Your task to perform on an android device: What's on my calendar tomorrow? Image 0: 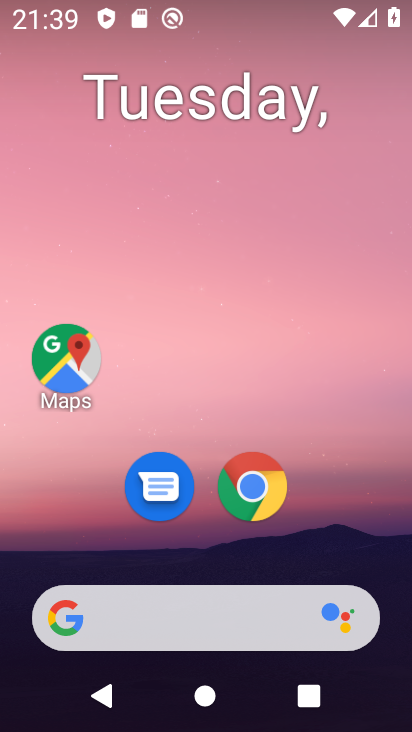
Step 0: press home button
Your task to perform on an android device: What's on my calendar tomorrow? Image 1: 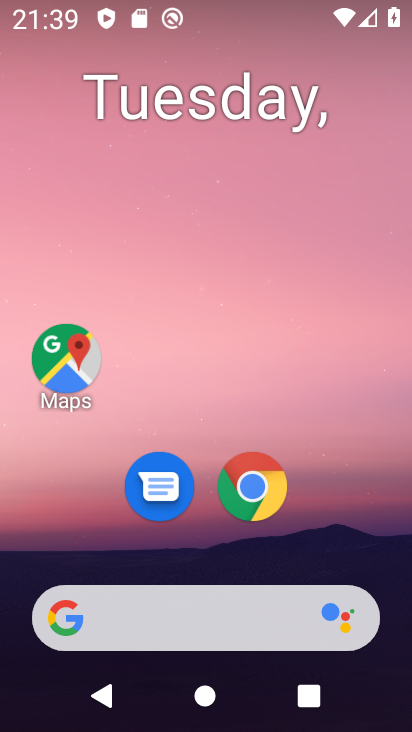
Step 1: drag from (345, 522) to (354, 149)
Your task to perform on an android device: What's on my calendar tomorrow? Image 2: 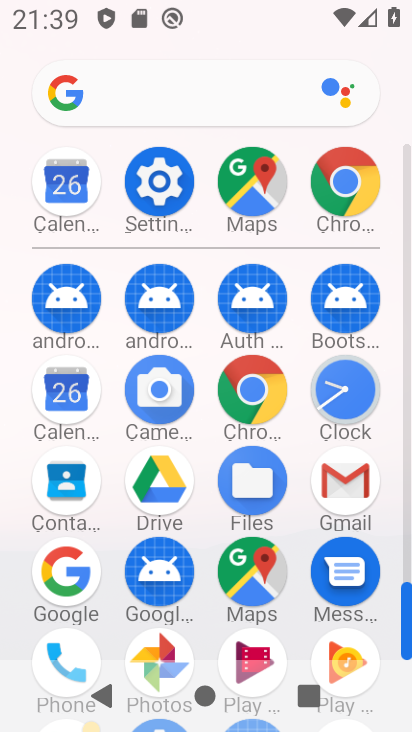
Step 2: click (74, 389)
Your task to perform on an android device: What's on my calendar tomorrow? Image 3: 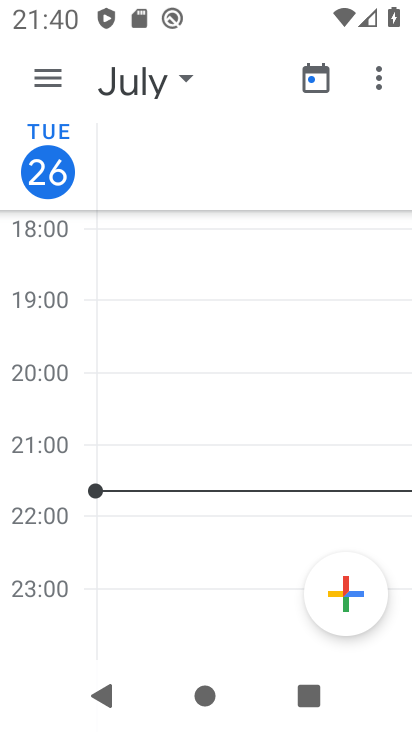
Step 3: click (58, 77)
Your task to perform on an android device: What's on my calendar tomorrow? Image 4: 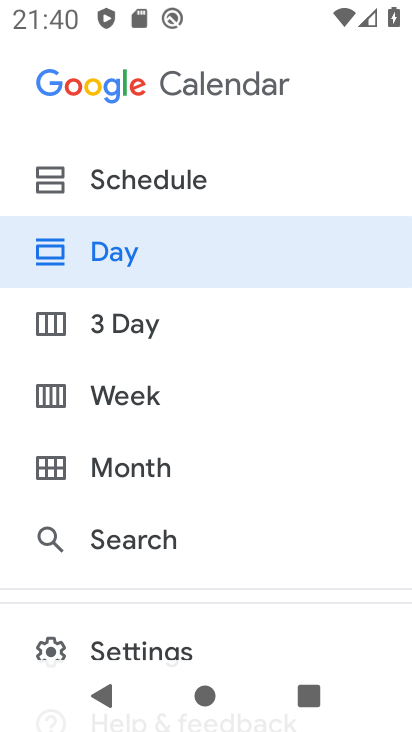
Step 4: click (121, 186)
Your task to perform on an android device: What's on my calendar tomorrow? Image 5: 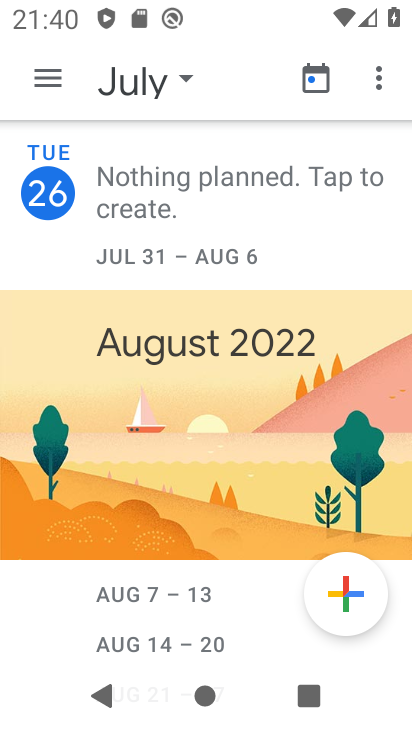
Step 5: click (181, 83)
Your task to perform on an android device: What's on my calendar tomorrow? Image 6: 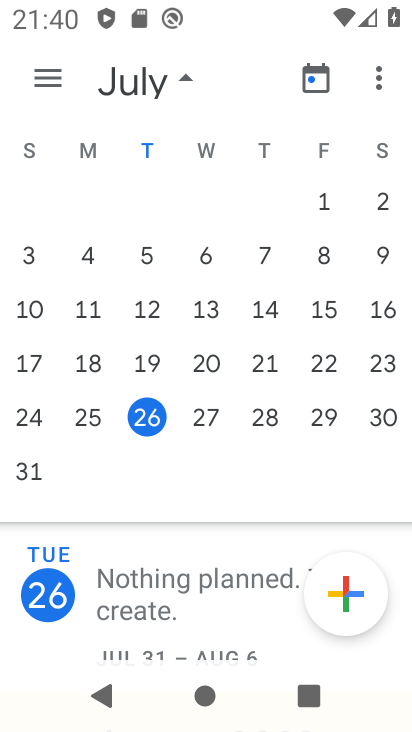
Step 6: click (263, 406)
Your task to perform on an android device: What's on my calendar tomorrow? Image 7: 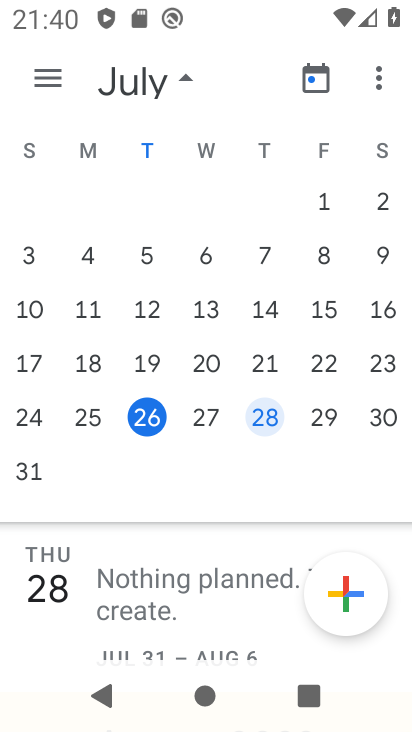
Step 7: task complete